Your task to perform on an android device: turn pop-ups on in chrome Image 0: 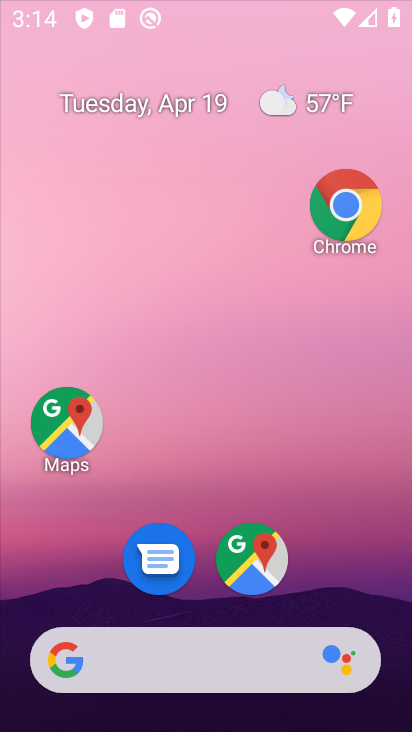
Step 0: drag from (191, 618) to (200, 212)
Your task to perform on an android device: turn pop-ups on in chrome Image 1: 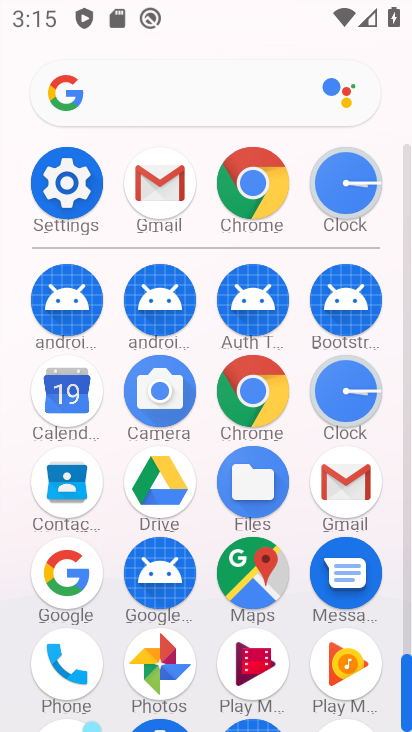
Step 1: drag from (217, 639) to (264, 301)
Your task to perform on an android device: turn pop-ups on in chrome Image 2: 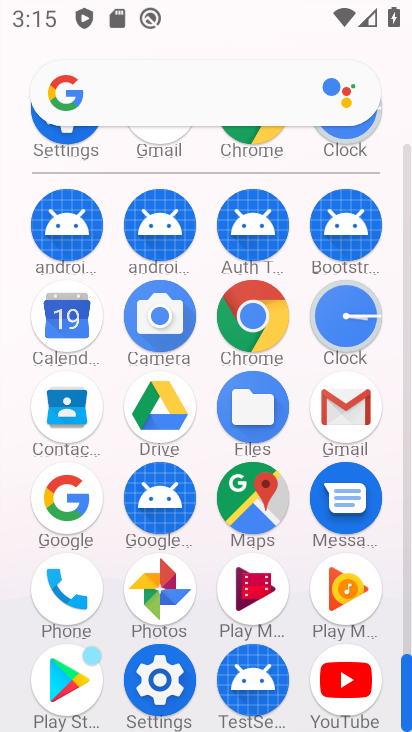
Step 2: click (257, 321)
Your task to perform on an android device: turn pop-ups on in chrome Image 3: 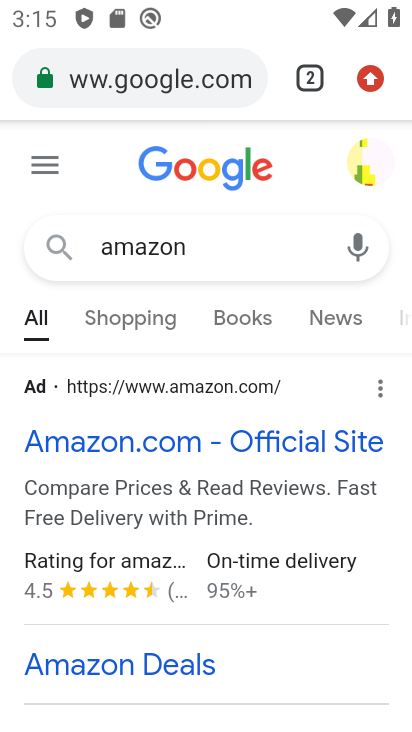
Step 3: click (369, 78)
Your task to perform on an android device: turn pop-ups on in chrome Image 4: 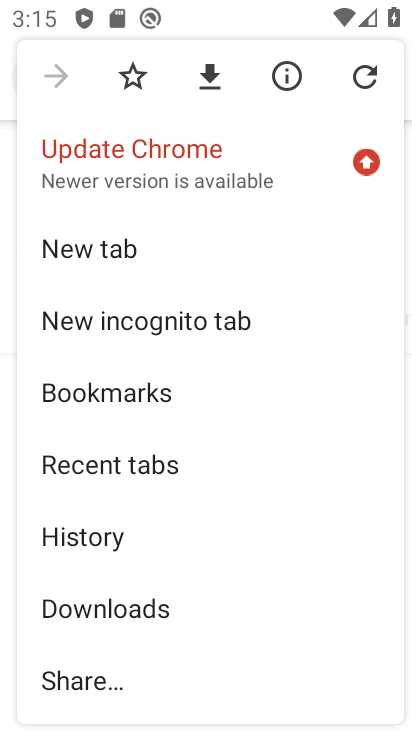
Step 4: drag from (115, 608) to (153, 256)
Your task to perform on an android device: turn pop-ups on in chrome Image 5: 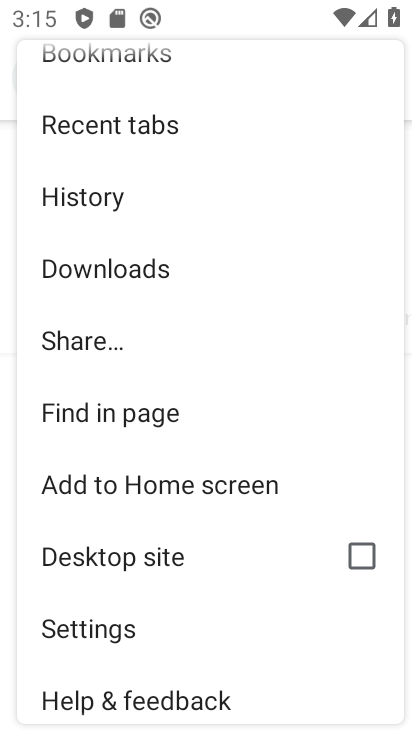
Step 5: click (83, 623)
Your task to perform on an android device: turn pop-ups on in chrome Image 6: 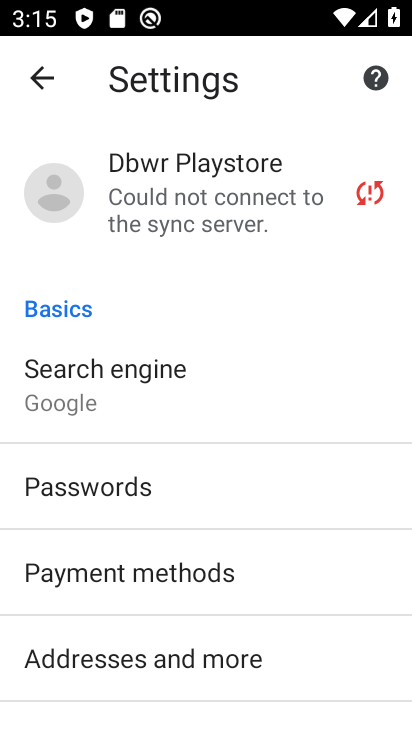
Step 6: drag from (156, 598) to (207, 264)
Your task to perform on an android device: turn pop-ups on in chrome Image 7: 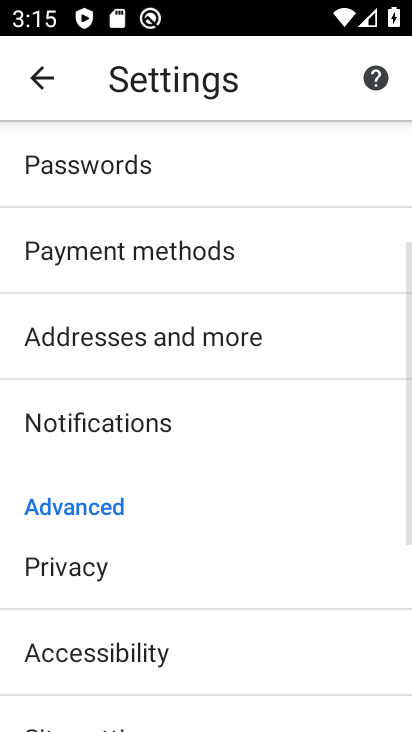
Step 7: drag from (205, 596) to (264, 308)
Your task to perform on an android device: turn pop-ups on in chrome Image 8: 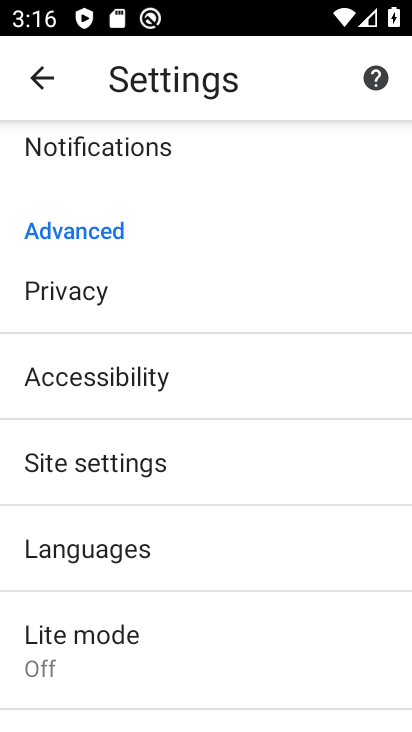
Step 8: drag from (118, 626) to (143, 374)
Your task to perform on an android device: turn pop-ups on in chrome Image 9: 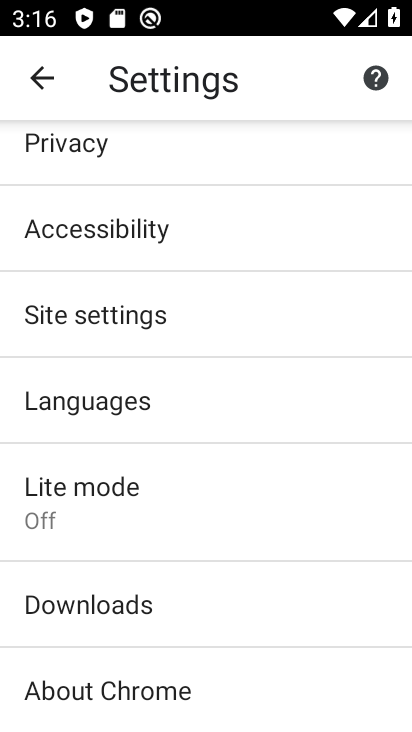
Step 9: click (100, 310)
Your task to perform on an android device: turn pop-ups on in chrome Image 10: 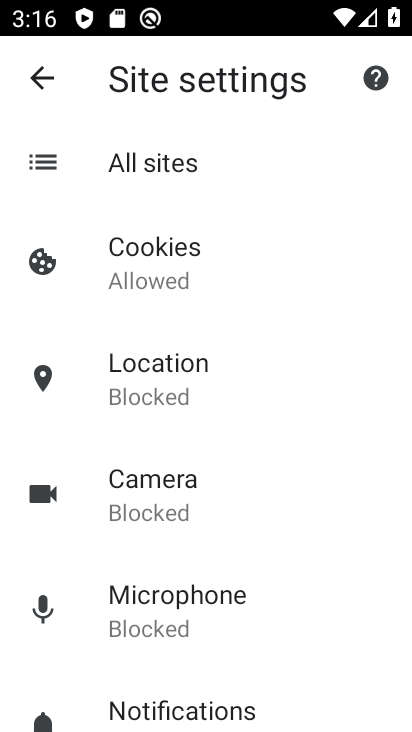
Step 10: drag from (163, 593) to (213, 301)
Your task to perform on an android device: turn pop-ups on in chrome Image 11: 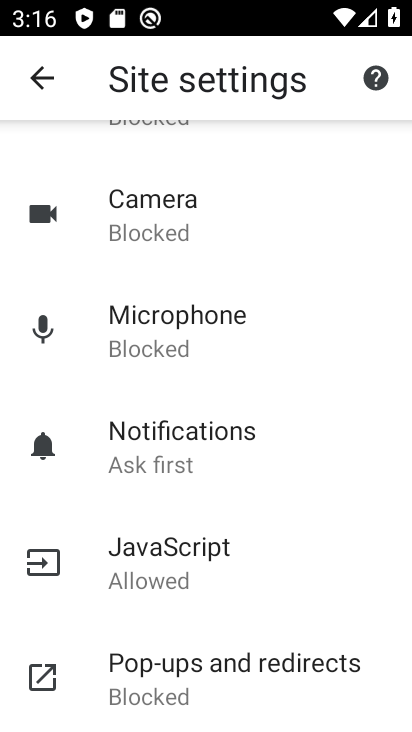
Step 11: click (159, 693)
Your task to perform on an android device: turn pop-ups on in chrome Image 12: 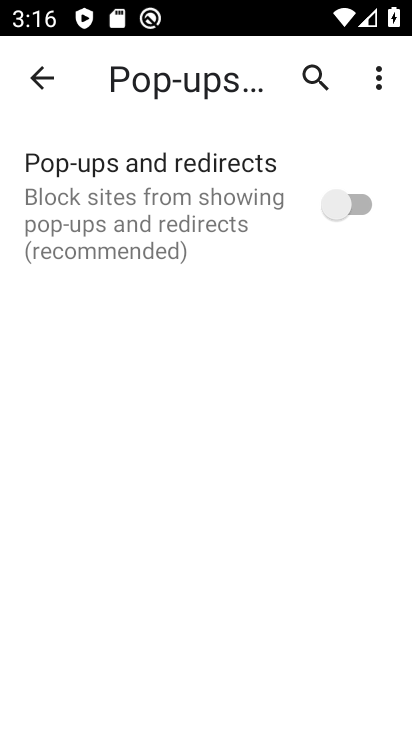
Step 12: click (344, 203)
Your task to perform on an android device: turn pop-ups on in chrome Image 13: 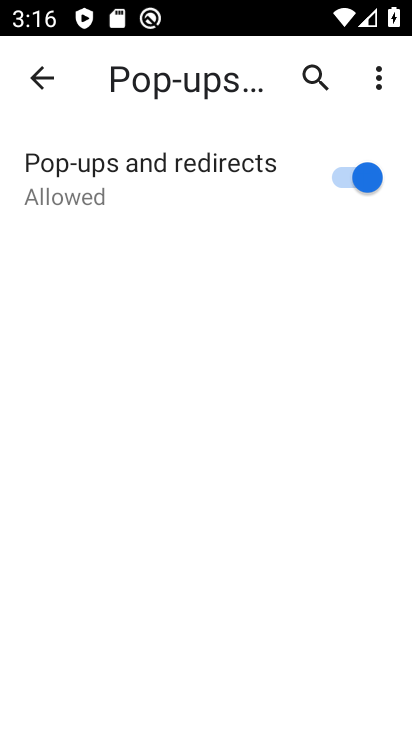
Step 13: task complete